Your task to perform on an android device: turn pop-ups off in chrome Image 0: 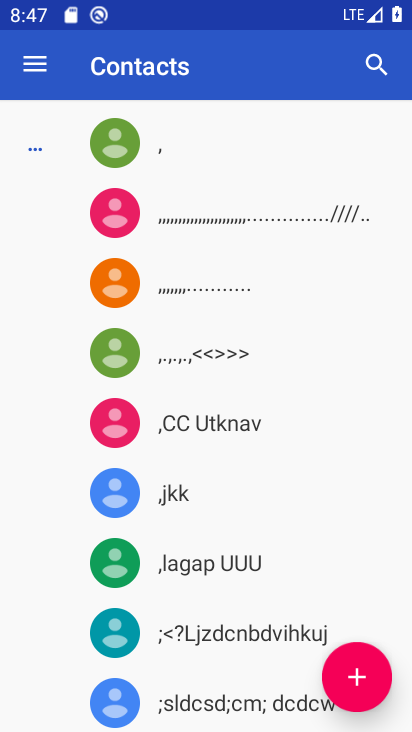
Step 0: press home button
Your task to perform on an android device: turn pop-ups off in chrome Image 1: 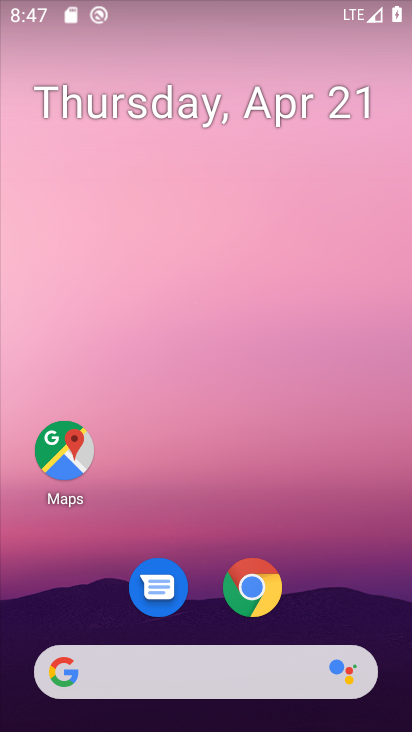
Step 1: click (255, 584)
Your task to perform on an android device: turn pop-ups off in chrome Image 2: 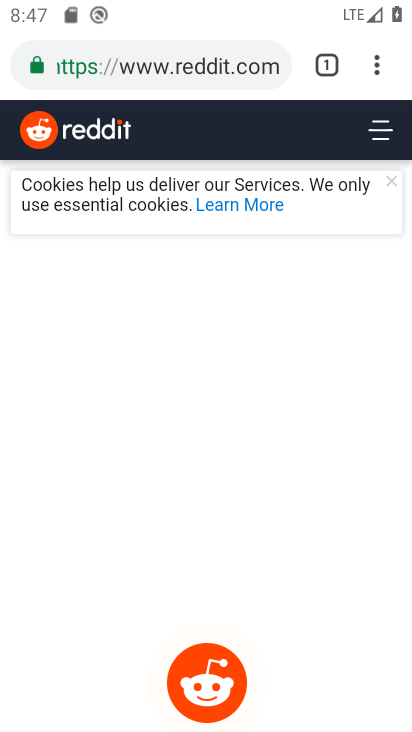
Step 2: click (374, 57)
Your task to perform on an android device: turn pop-ups off in chrome Image 3: 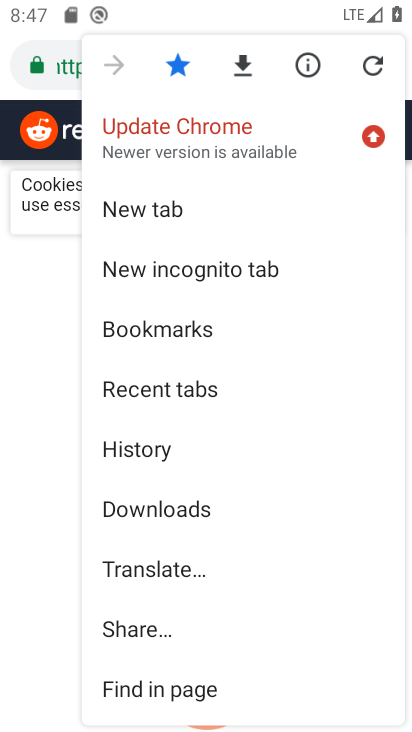
Step 3: click (297, 404)
Your task to perform on an android device: turn pop-ups off in chrome Image 4: 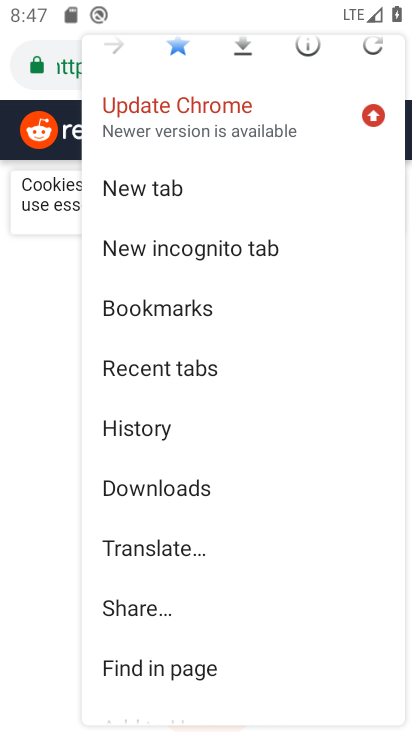
Step 4: drag from (311, 508) to (308, 319)
Your task to perform on an android device: turn pop-ups off in chrome Image 5: 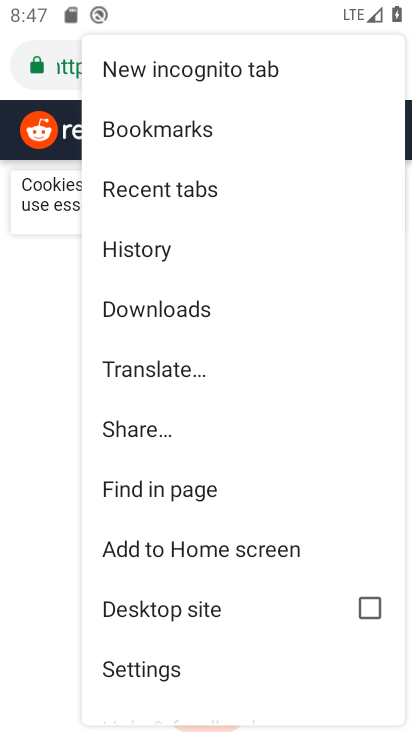
Step 5: click (140, 666)
Your task to perform on an android device: turn pop-ups off in chrome Image 6: 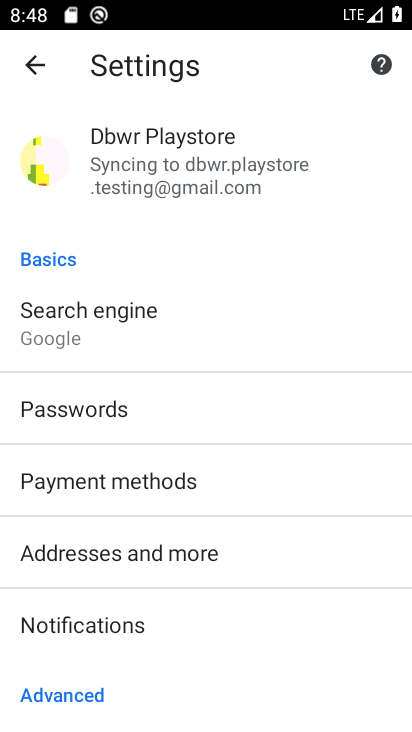
Step 6: drag from (263, 638) to (291, 301)
Your task to perform on an android device: turn pop-ups off in chrome Image 7: 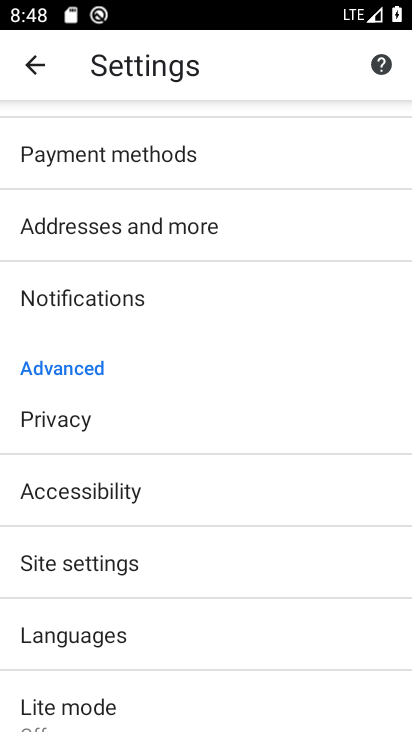
Step 7: click (56, 566)
Your task to perform on an android device: turn pop-ups off in chrome Image 8: 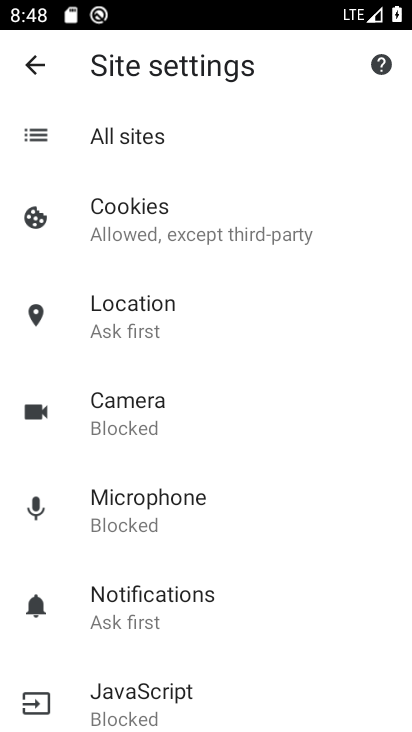
Step 8: drag from (276, 685) to (291, 427)
Your task to perform on an android device: turn pop-ups off in chrome Image 9: 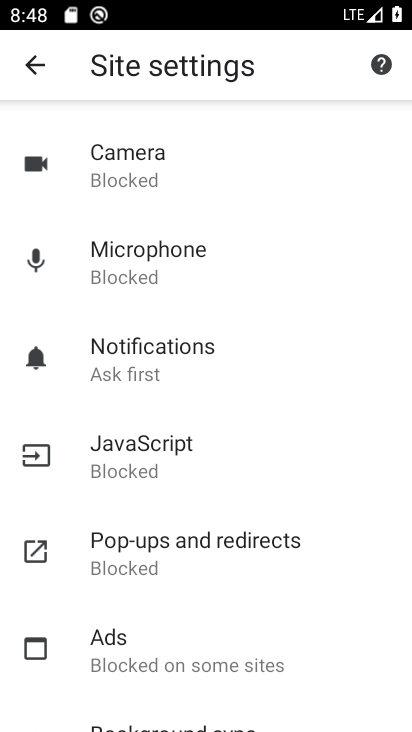
Step 9: click (137, 540)
Your task to perform on an android device: turn pop-ups off in chrome Image 10: 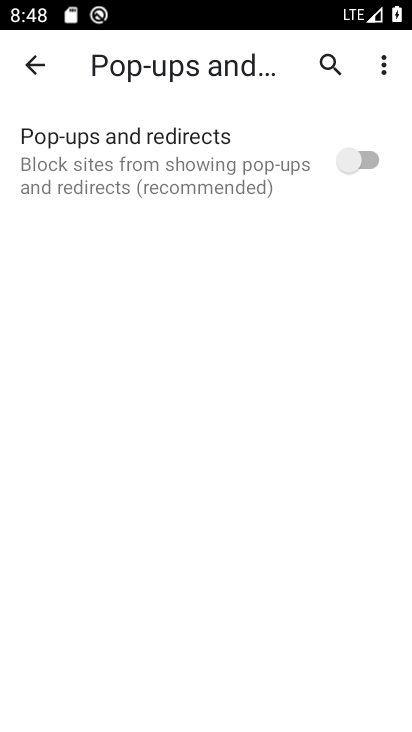
Step 10: task complete